Your task to perform on an android device: Open CNN.com Image 0: 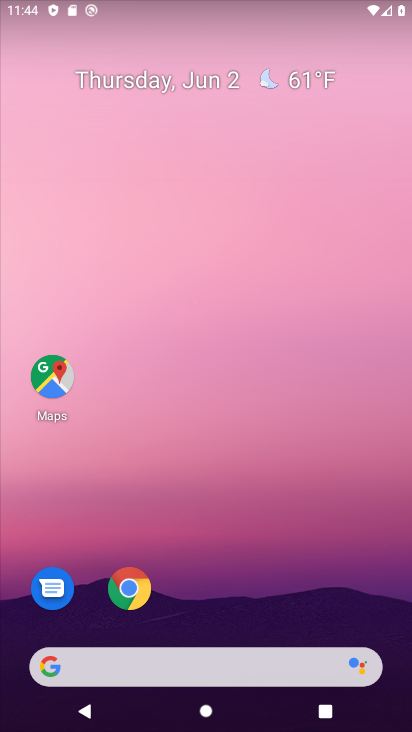
Step 0: drag from (233, 604) to (181, 1)
Your task to perform on an android device: Open CNN.com Image 1: 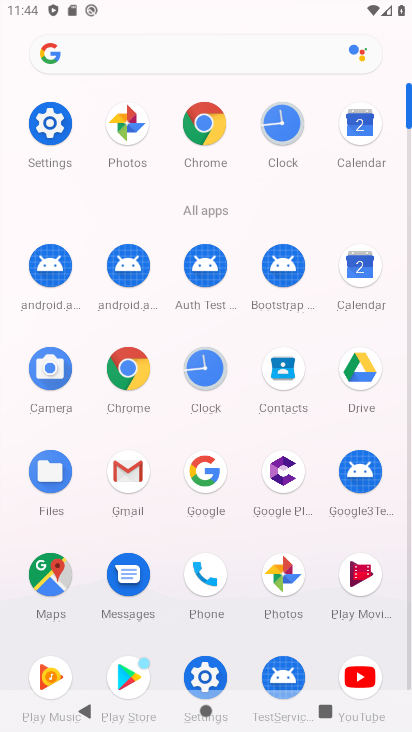
Step 1: click (151, 391)
Your task to perform on an android device: Open CNN.com Image 2: 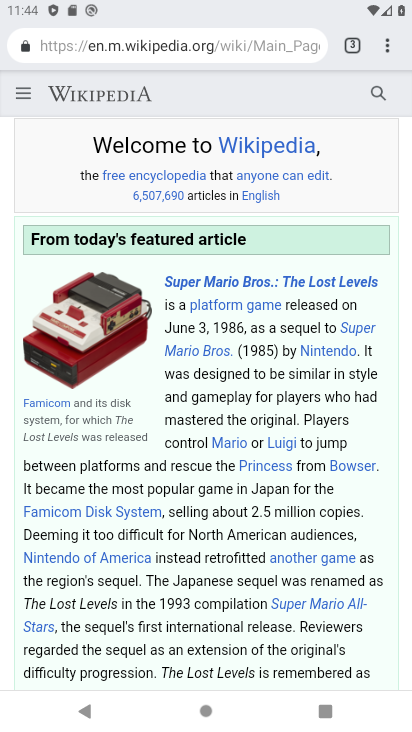
Step 2: click (351, 57)
Your task to perform on an android device: Open CNN.com Image 3: 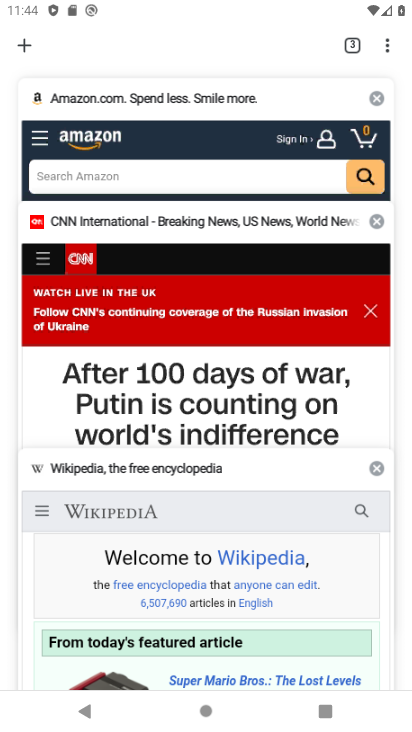
Step 3: click (22, 57)
Your task to perform on an android device: Open CNN.com Image 4: 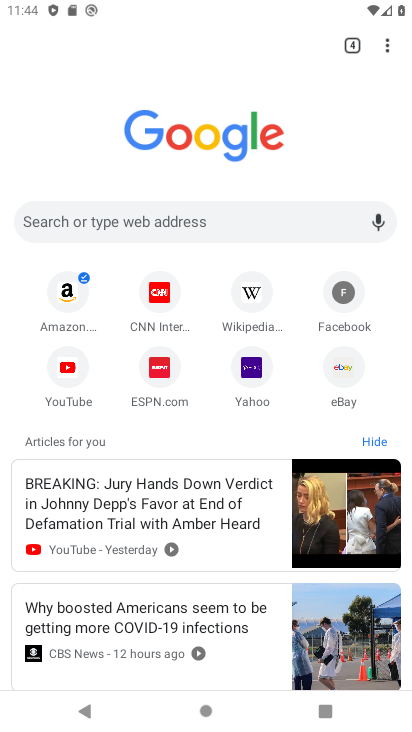
Step 4: click (161, 308)
Your task to perform on an android device: Open CNN.com Image 5: 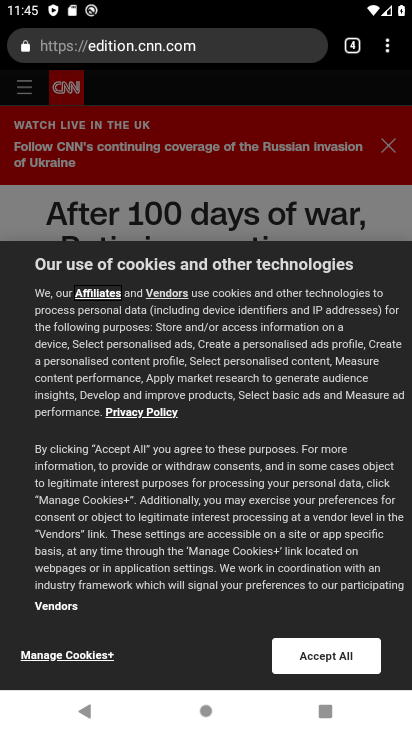
Step 5: task complete